Your task to perform on an android device: turn off translation in the chrome app Image 0: 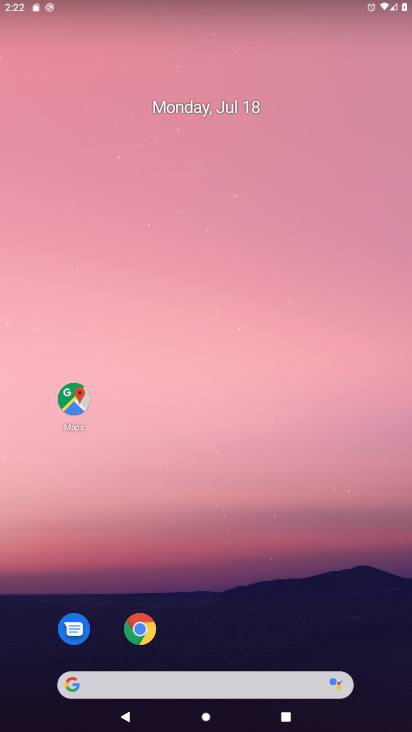
Step 0: click (140, 629)
Your task to perform on an android device: turn off translation in the chrome app Image 1: 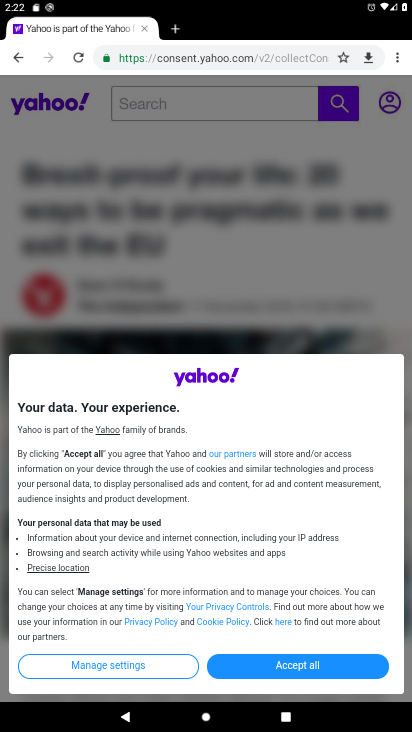
Step 1: click (394, 59)
Your task to perform on an android device: turn off translation in the chrome app Image 2: 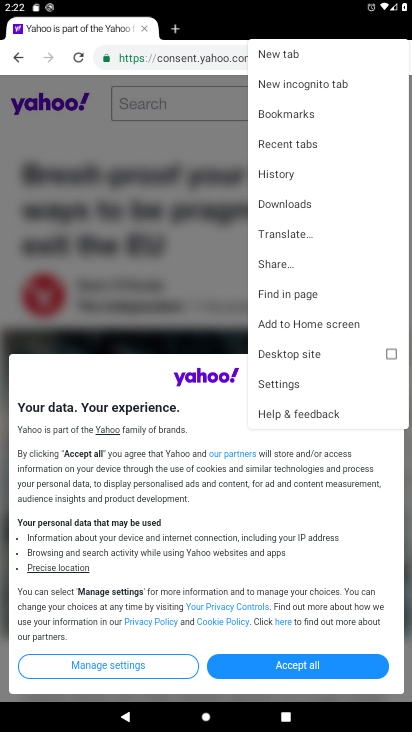
Step 2: click (272, 378)
Your task to perform on an android device: turn off translation in the chrome app Image 3: 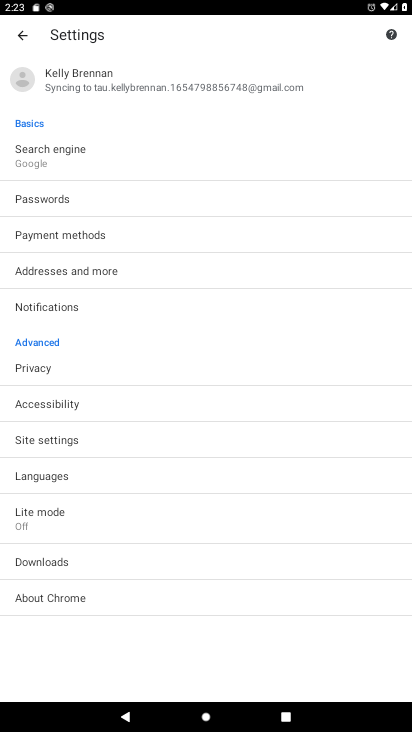
Step 3: click (56, 476)
Your task to perform on an android device: turn off translation in the chrome app Image 4: 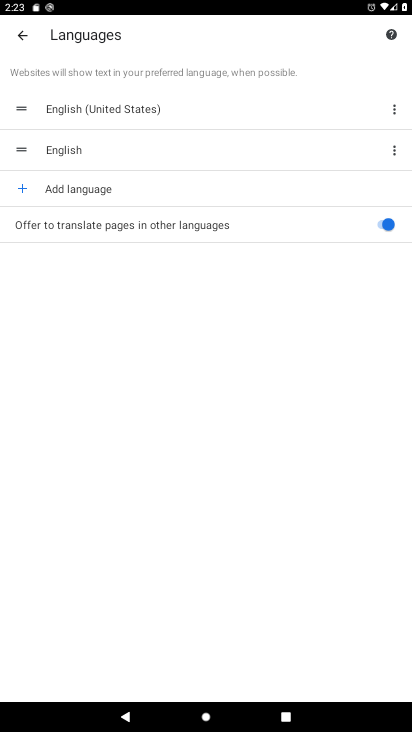
Step 4: click (381, 223)
Your task to perform on an android device: turn off translation in the chrome app Image 5: 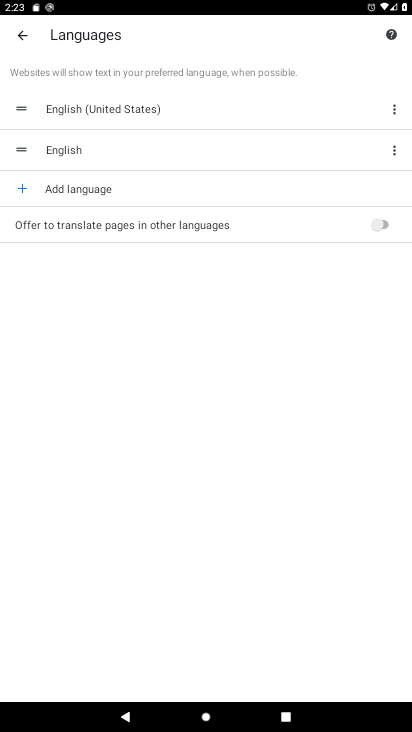
Step 5: task complete